Your task to perform on an android device: Go to display settings Image 0: 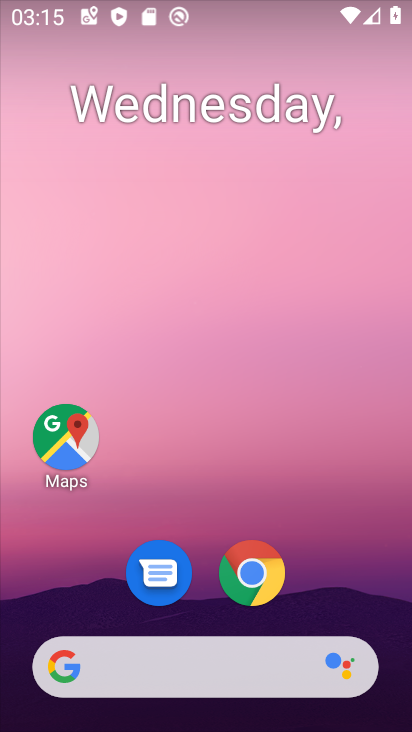
Step 0: drag from (343, 528) to (246, 55)
Your task to perform on an android device: Go to display settings Image 1: 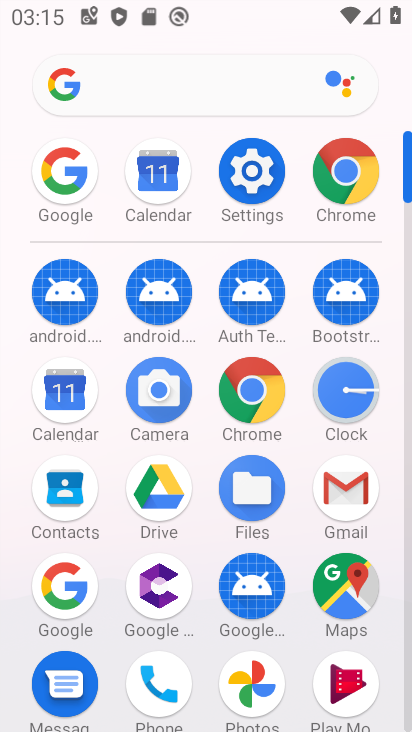
Step 1: click (254, 173)
Your task to perform on an android device: Go to display settings Image 2: 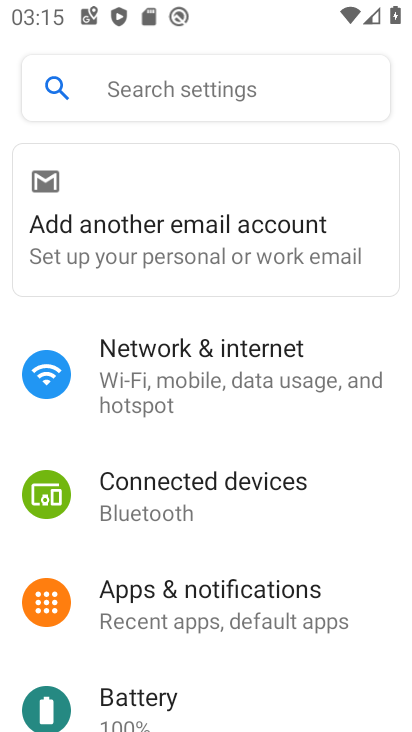
Step 2: drag from (206, 553) to (307, 366)
Your task to perform on an android device: Go to display settings Image 3: 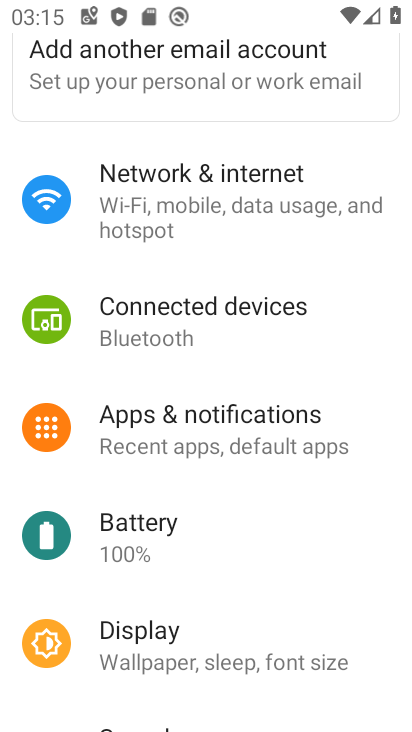
Step 3: drag from (207, 577) to (304, 444)
Your task to perform on an android device: Go to display settings Image 4: 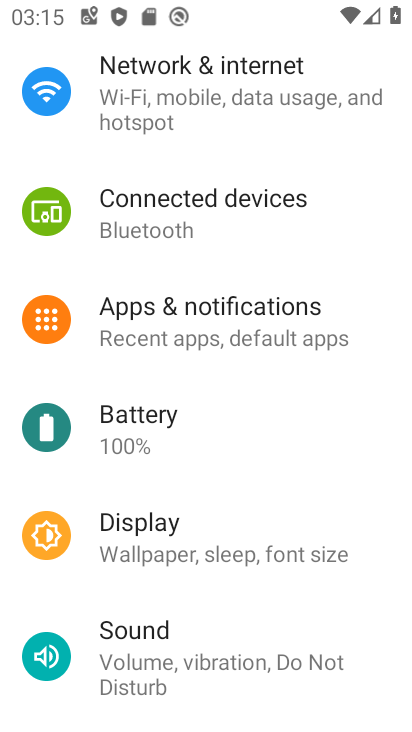
Step 4: click (133, 531)
Your task to perform on an android device: Go to display settings Image 5: 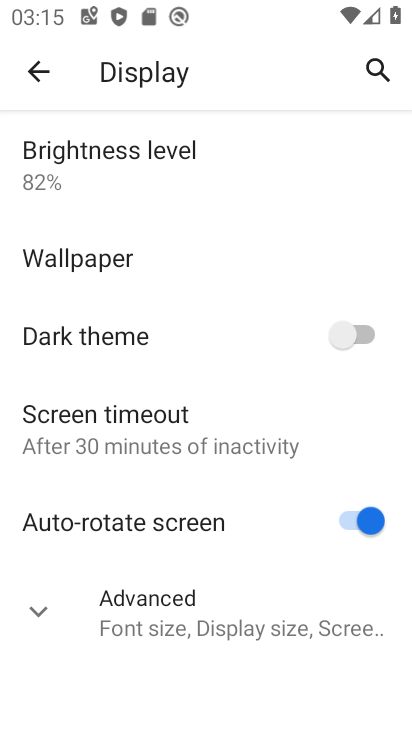
Step 5: task complete